Your task to perform on an android device: open chrome privacy settings Image 0: 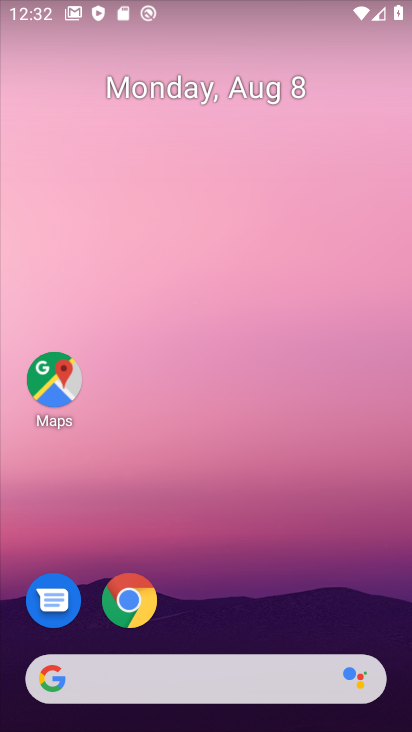
Step 0: click (127, 629)
Your task to perform on an android device: open chrome privacy settings Image 1: 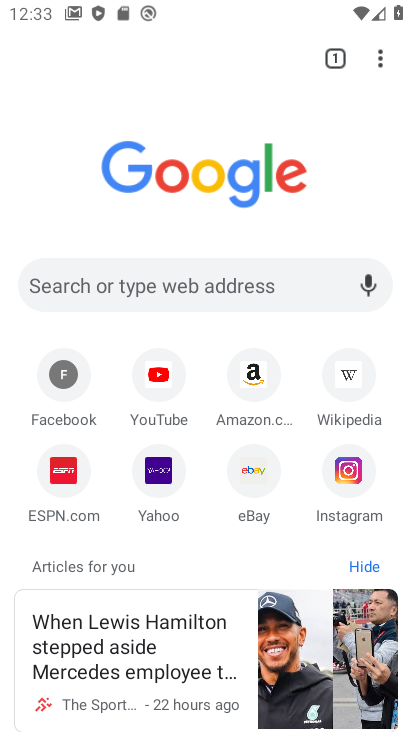
Step 1: drag from (374, 72) to (199, 561)
Your task to perform on an android device: open chrome privacy settings Image 2: 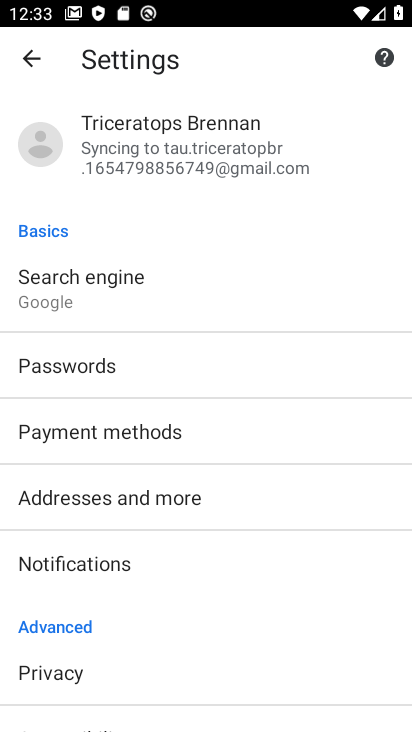
Step 2: click (89, 671)
Your task to perform on an android device: open chrome privacy settings Image 3: 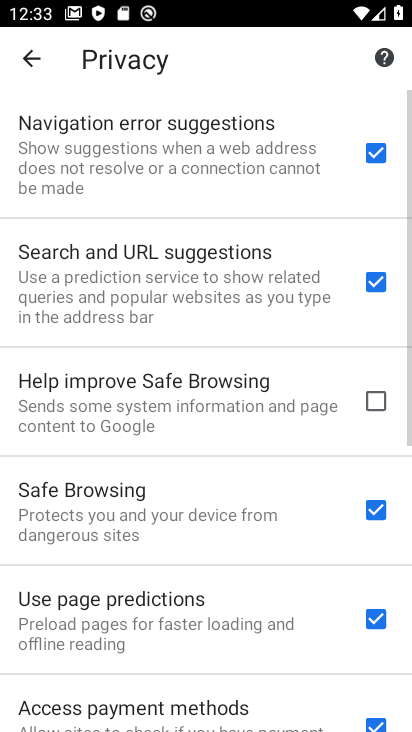
Step 3: task complete